Your task to perform on an android device: Show me popular games on the Play Store Image 0: 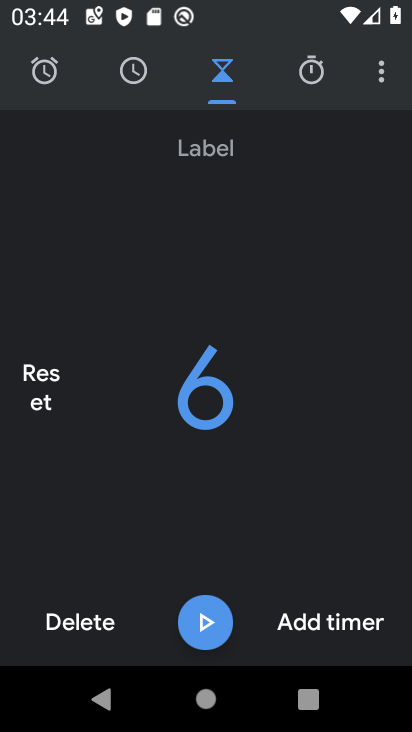
Step 0: press home button
Your task to perform on an android device: Show me popular games on the Play Store Image 1: 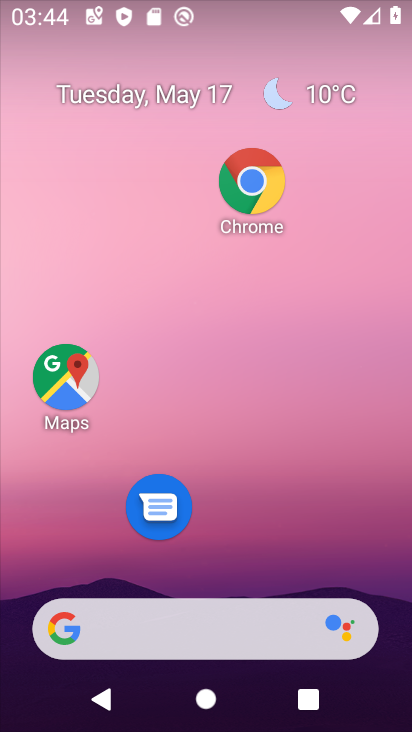
Step 1: drag from (172, 551) to (168, 18)
Your task to perform on an android device: Show me popular games on the Play Store Image 2: 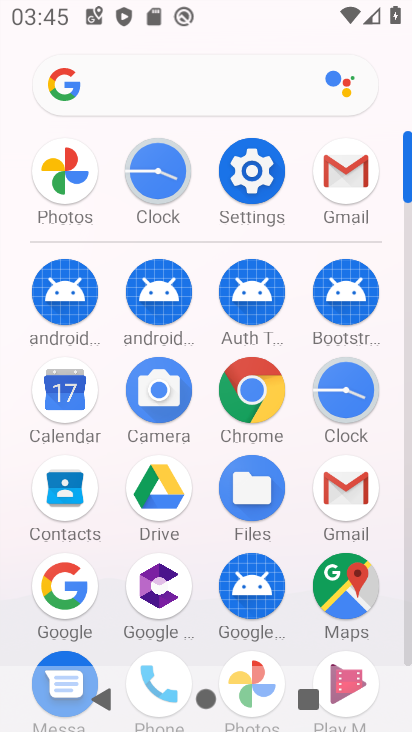
Step 2: drag from (200, 544) to (222, 90)
Your task to perform on an android device: Show me popular games on the Play Store Image 3: 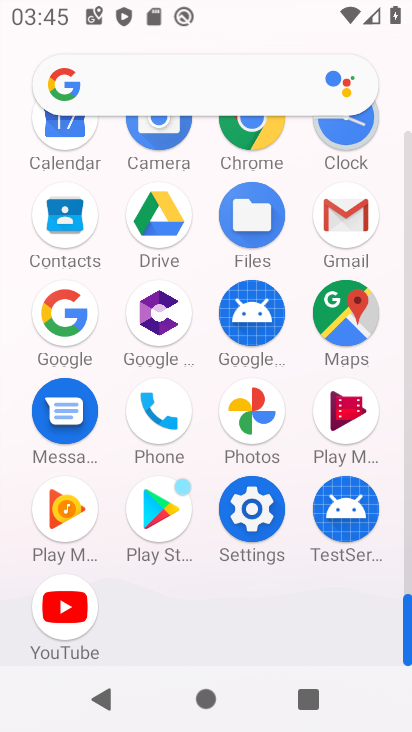
Step 3: click (161, 505)
Your task to perform on an android device: Show me popular games on the Play Store Image 4: 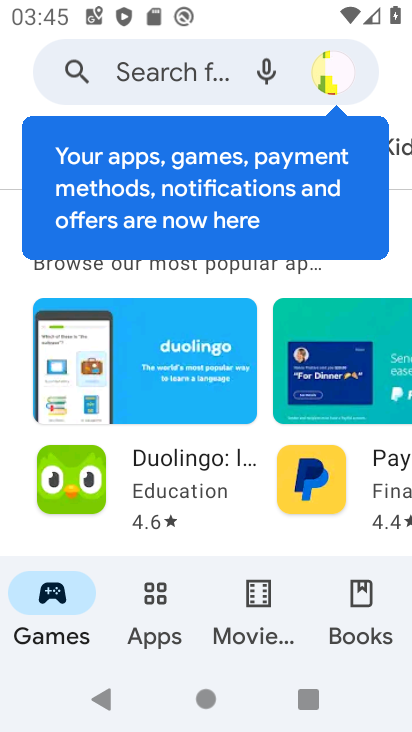
Step 4: click (238, 529)
Your task to perform on an android device: Show me popular games on the Play Store Image 5: 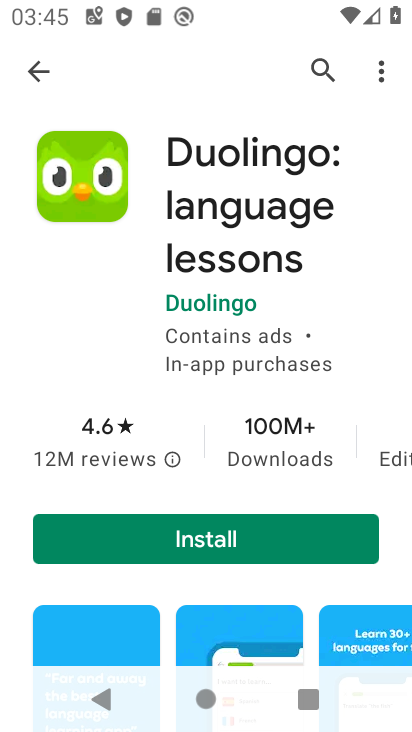
Step 5: click (41, 75)
Your task to perform on an android device: Show me popular games on the Play Store Image 6: 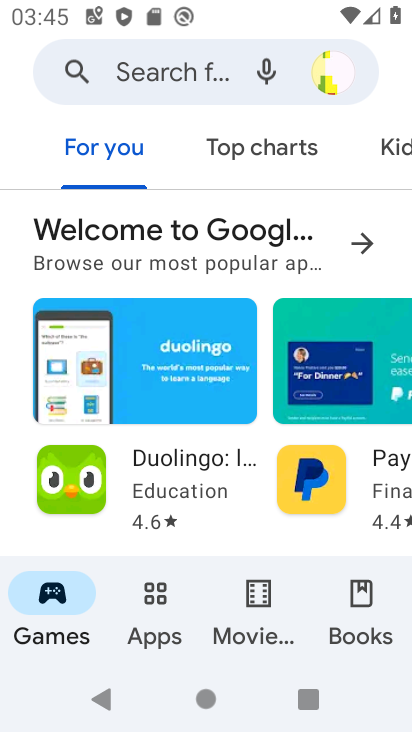
Step 6: click (275, 142)
Your task to perform on an android device: Show me popular games on the Play Store Image 7: 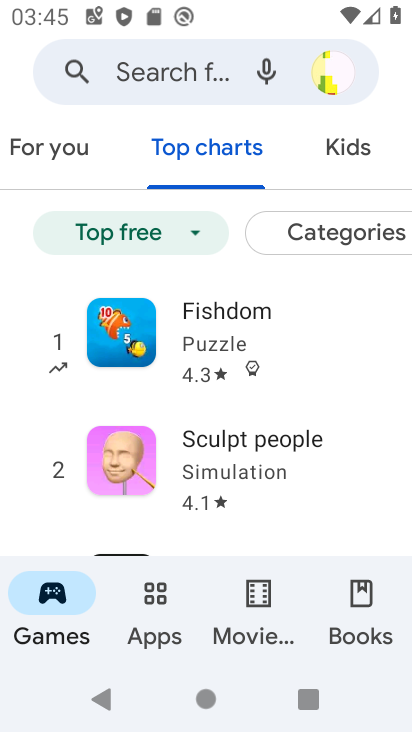
Step 7: task complete